Your task to perform on an android device: Open my contact list Image 0: 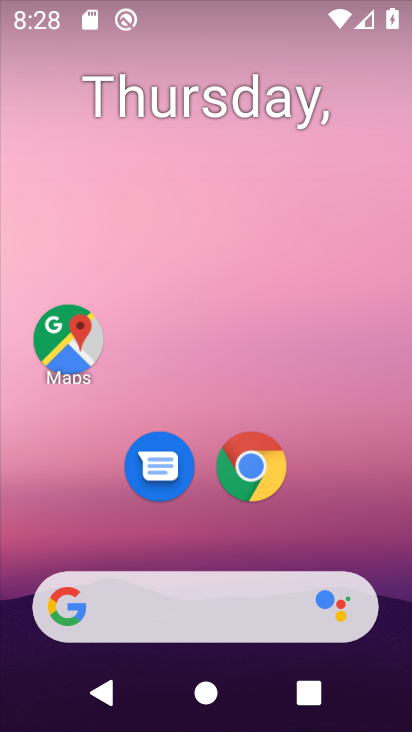
Step 0: drag from (184, 569) to (294, 26)
Your task to perform on an android device: Open my contact list Image 1: 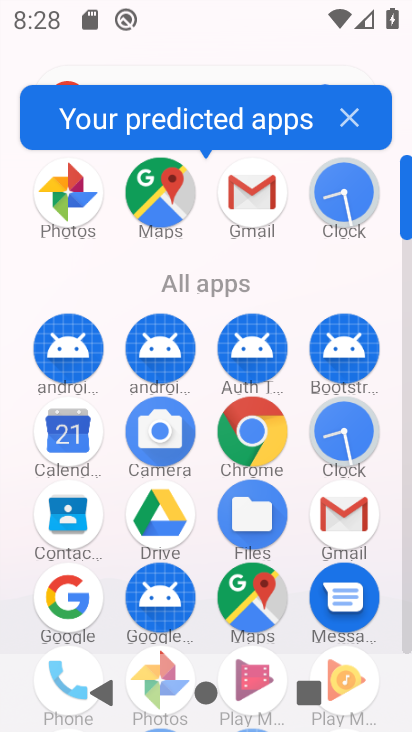
Step 1: click (69, 541)
Your task to perform on an android device: Open my contact list Image 2: 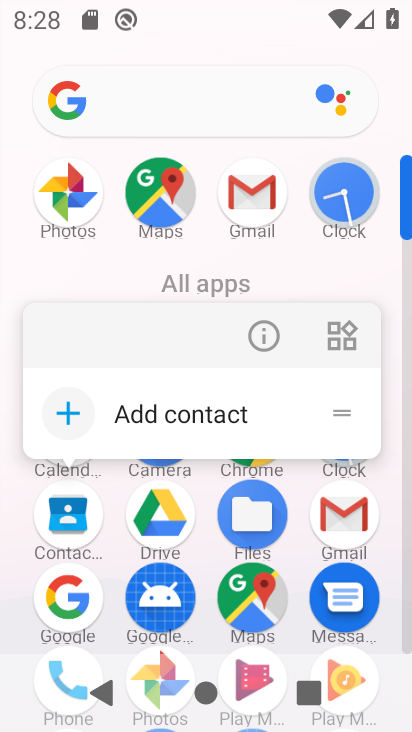
Step 2: click (65, 526)
Your task to perform on an android device: Open my contact list Image 3: 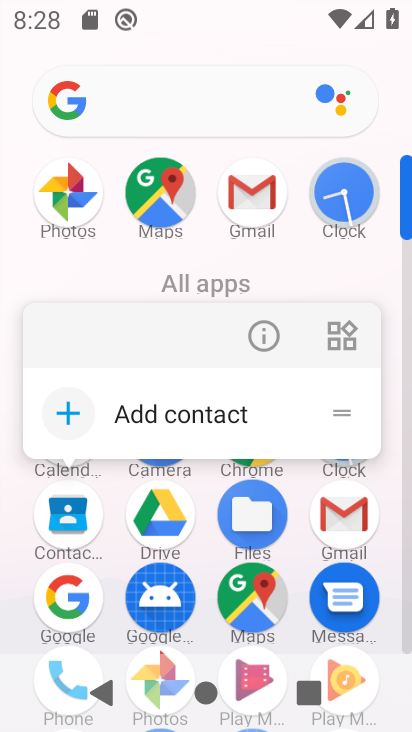
Step 3: click (63, 513)
Your task to perform on an android device: Open my contact list Image 4: 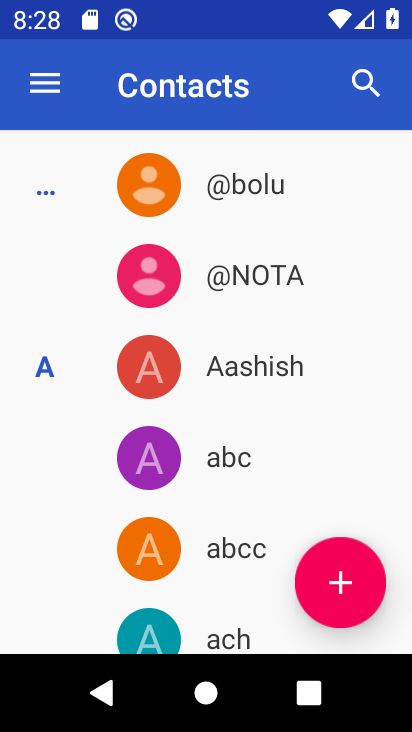
Step 4: task complete